Your task to perform on an android device: Is it going to rain this weekend? Image 0: 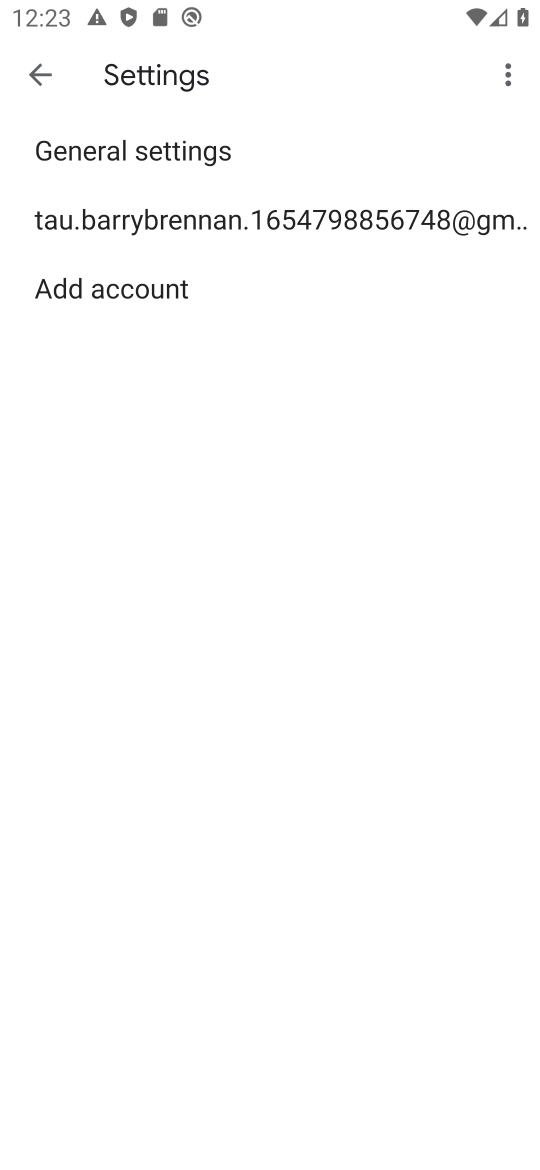
Step 0: press home button
Your task to perform on an android device: Is it going to rain this weekend? Image 1: 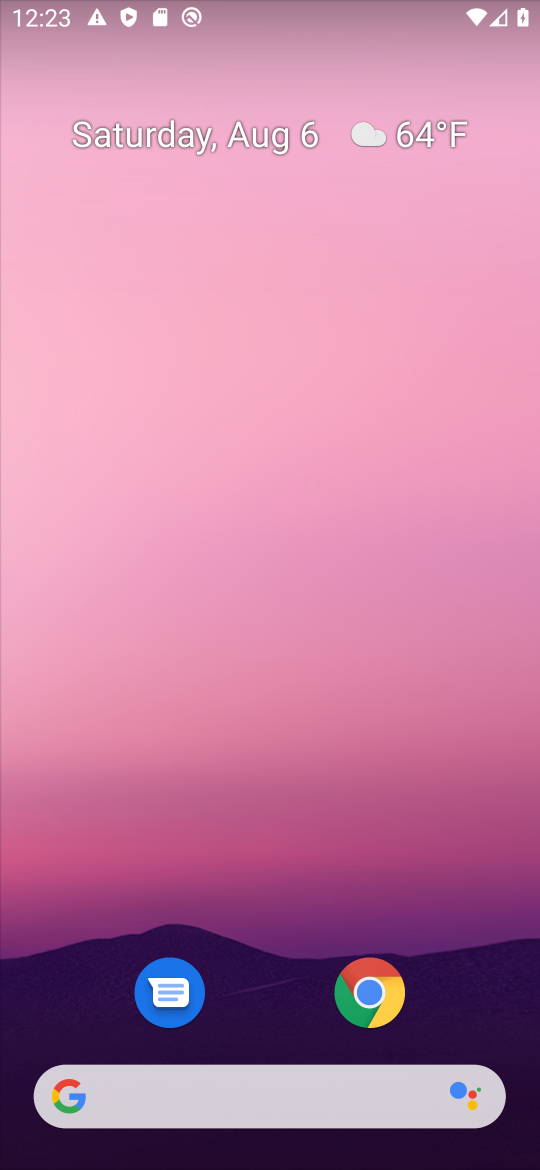
Step 1: click (164, 1088)
Your task to perform on an android device: Is it going to rain this weekend? Image 2: 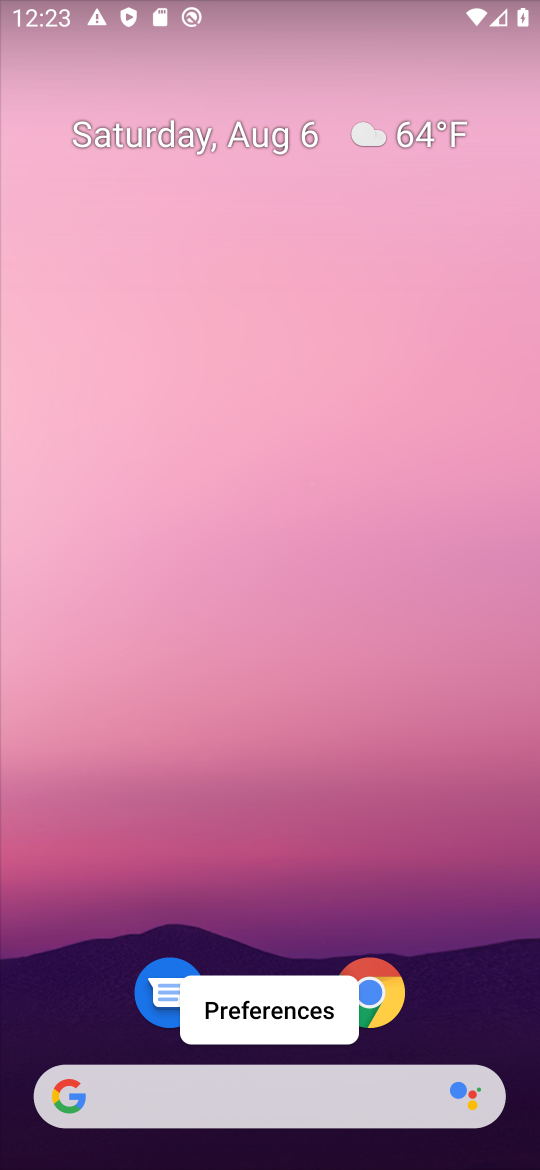
Step 2: click (172, 1089)
Your task to perform on an android device: Is it going to rain this weekend? Image 3: 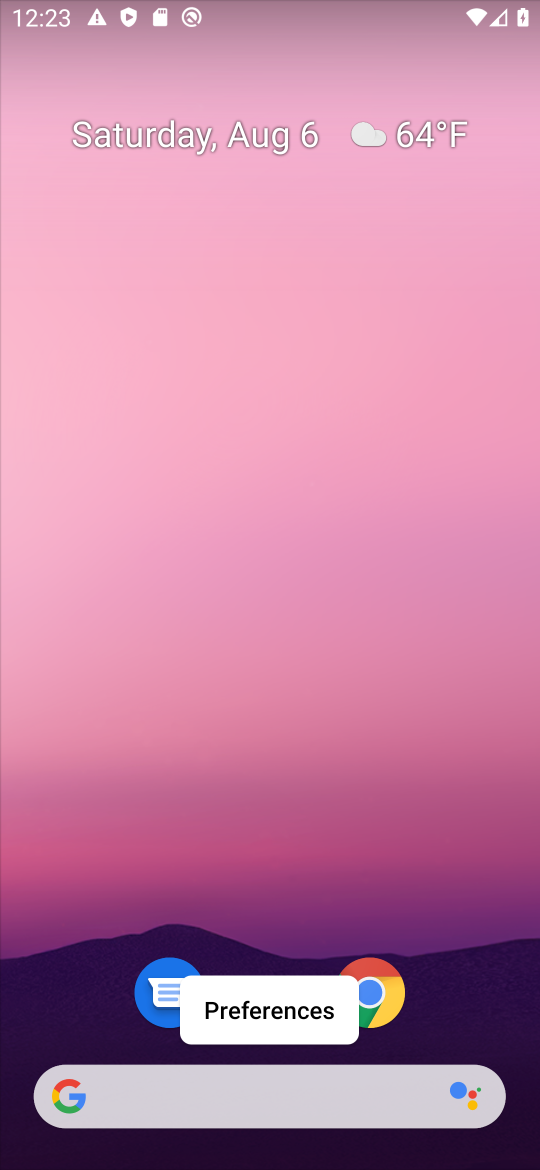
Step 3: click (184, 1089)
Your task to perform on an android device: Is it going to rain this weekend? Image 4: 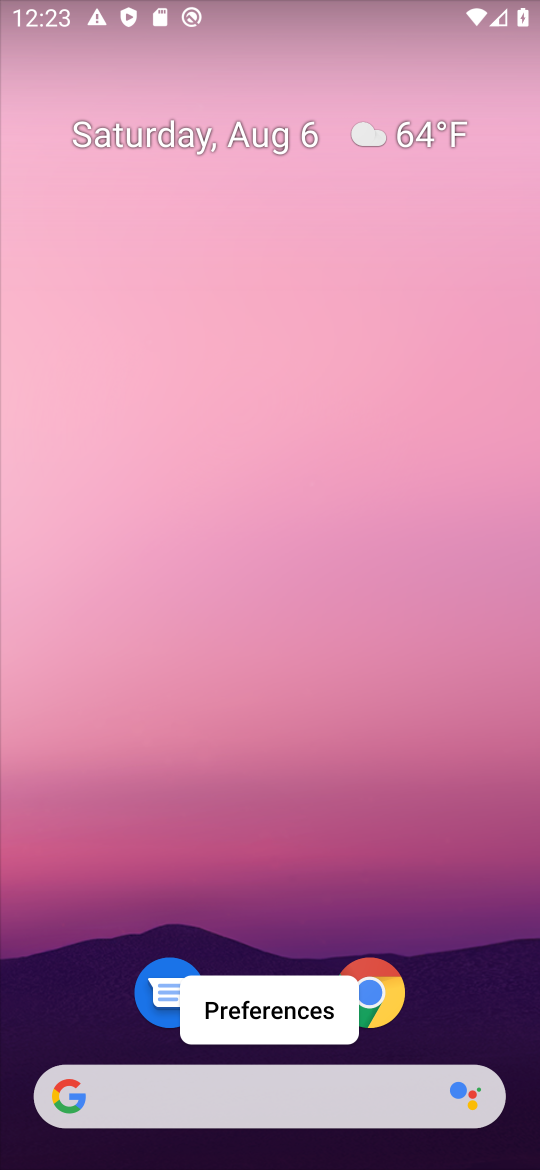
Step 4: click (185, 1081)
Your task to perform on an android device: Is it going to rain this weekend? Image 5: 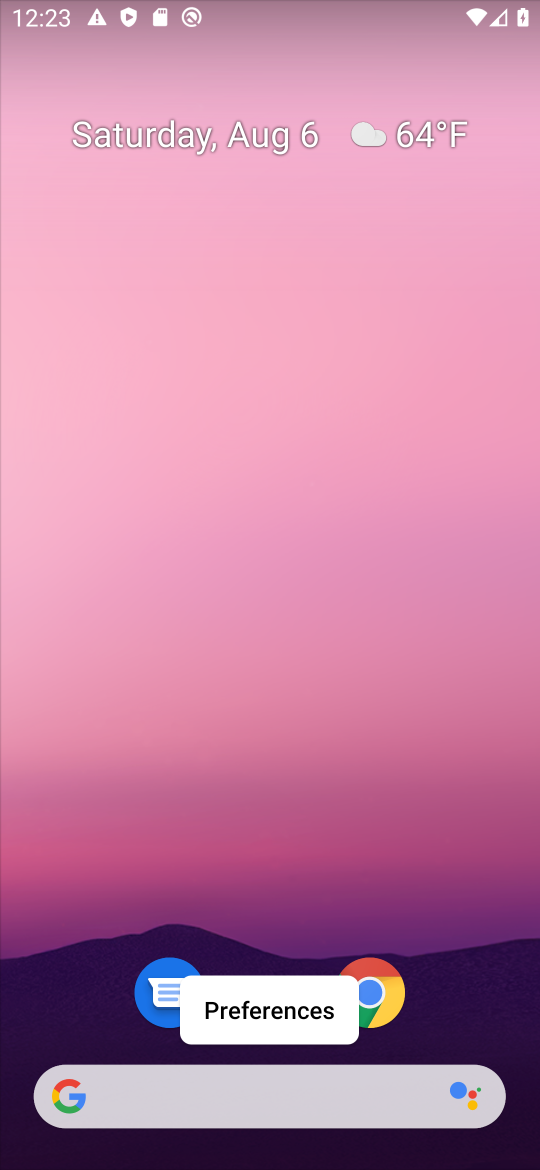
Step 5: click (240, 1098)
Your task to perform on an android device: Is it going to rain this weekend? Image 6: 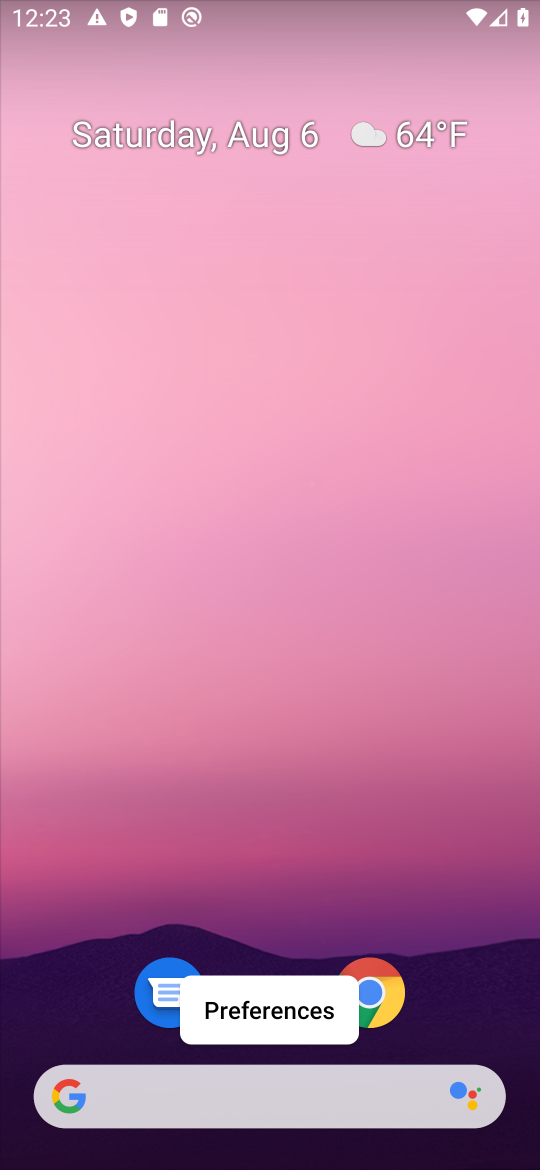
Step 6: click (196, 1098)
Your task to perform on an android device: Is it going to rain this weekend? Image 7: 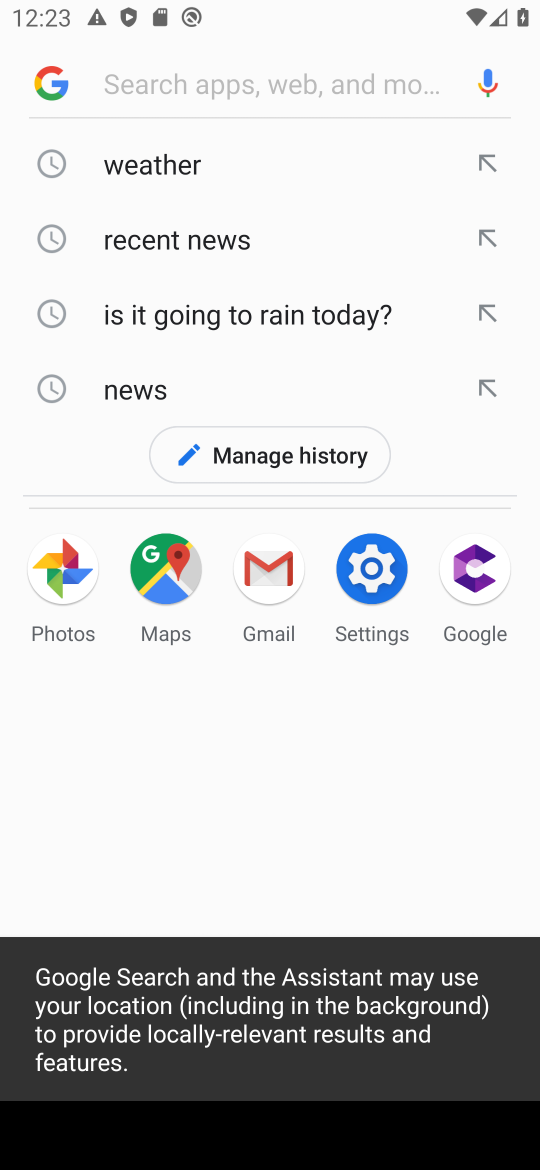
Step 7: click (186, 170)
Your task to perform on an android device: Is it going to rain this weekend? Image 8: 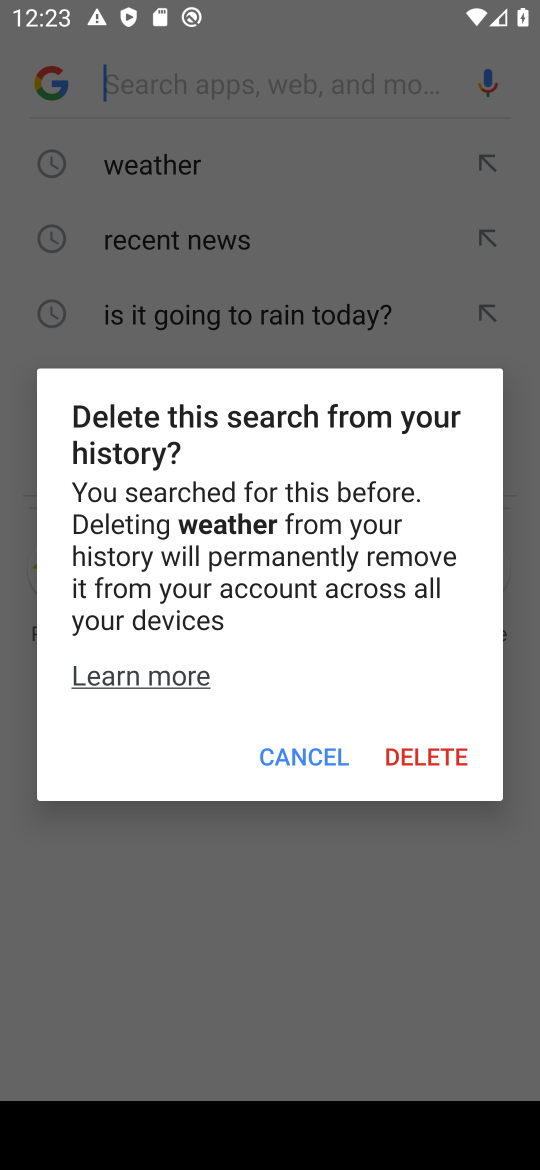
Step 8: click (316, 760)
Your task to perform on an android device: Is it going to rain this weekend? Image 9: 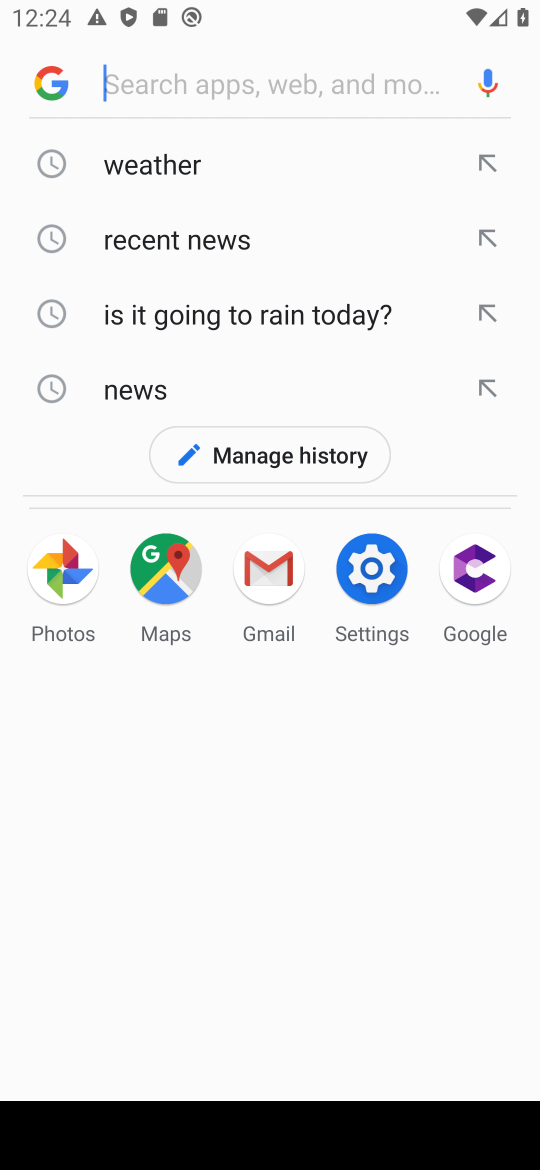
Step 9: click (220, 162)
Your task to perform on an android device: Is it going to rain this weekend? Image 10: 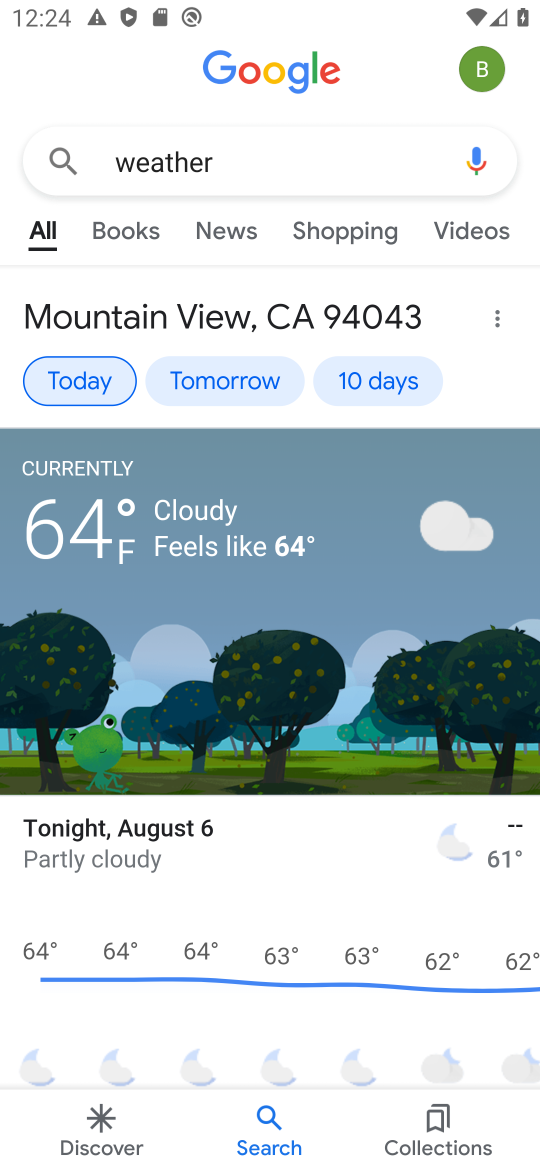
Step 10: click (377, 375)
Your task to perform on an android device: Is it going to rain this weekend? Image 11: 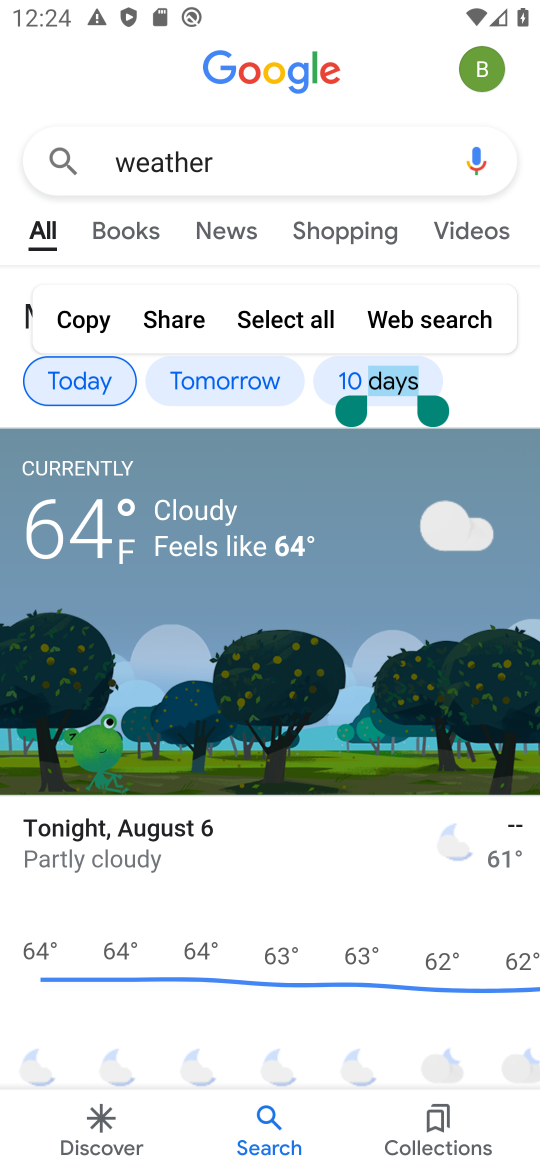
Step 11: click (370, 380)
Your task to perform on an android device: Is it going to rain this weekend? Image 12: 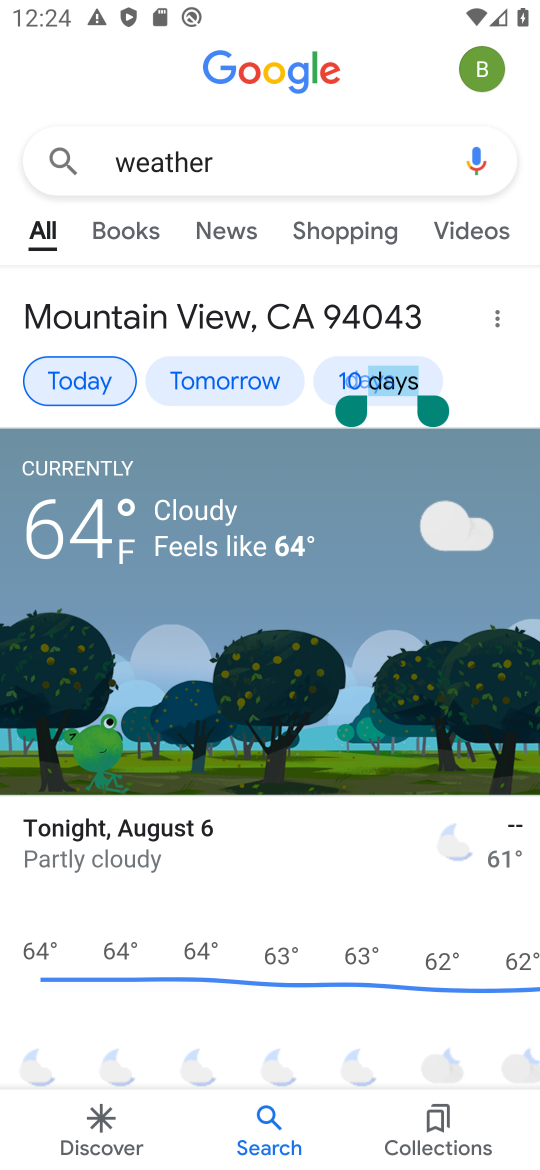
Step 12: click (357, 375)
Your task to perform on an android device: Is it going to rain this weekend? Image 13: 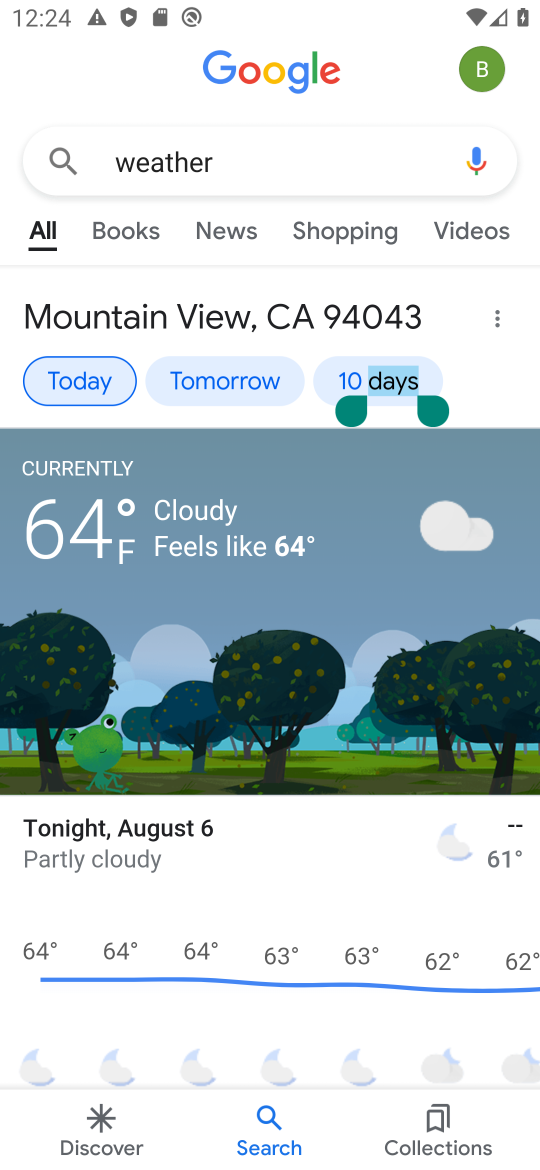
Step 13: drag from (275, 935) to (409, 290)
Your task to perform on an android device: Is it going to rain this weekend? Image 14: 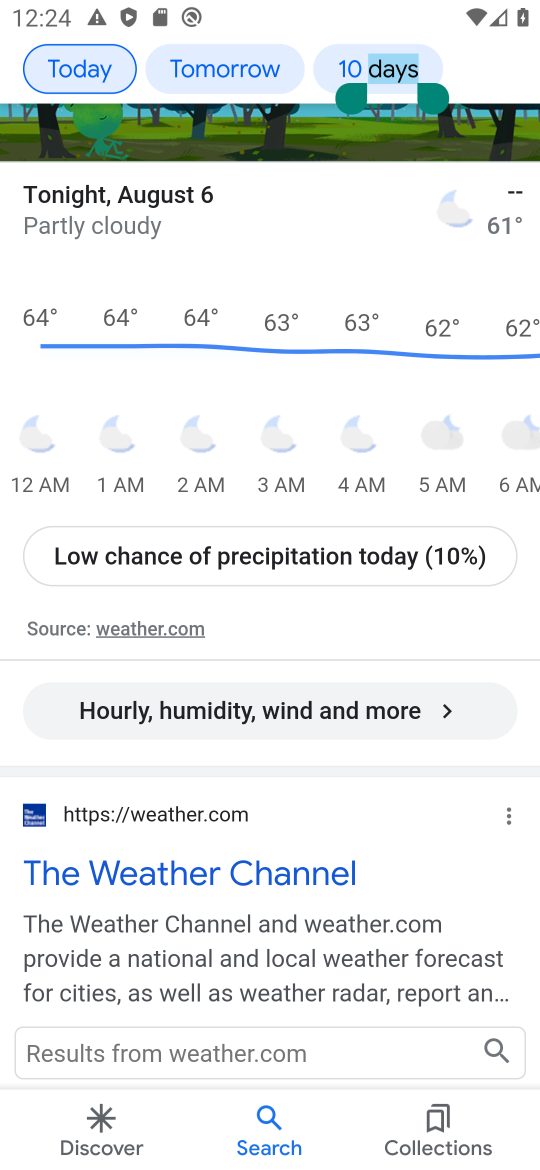
Step 14: drag from (374, 524) to (215, 862)
Your task to perform on an android device: Is it going to rain this weekend? Image 15: 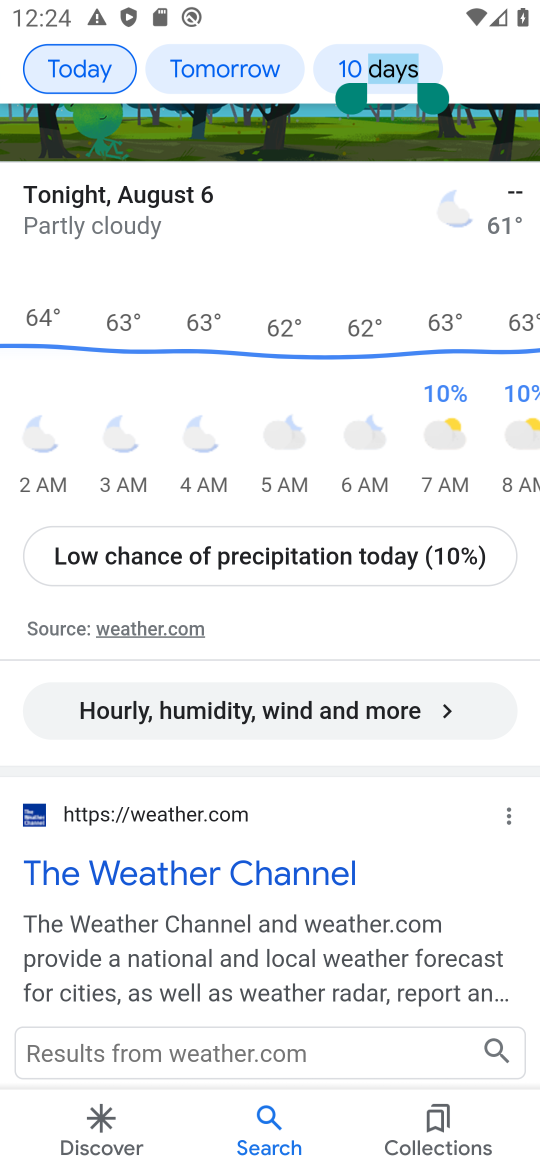
Step 15: click (357, 72)
Your task to perform on an android device: Is it going to rain this weekend? Image 16: 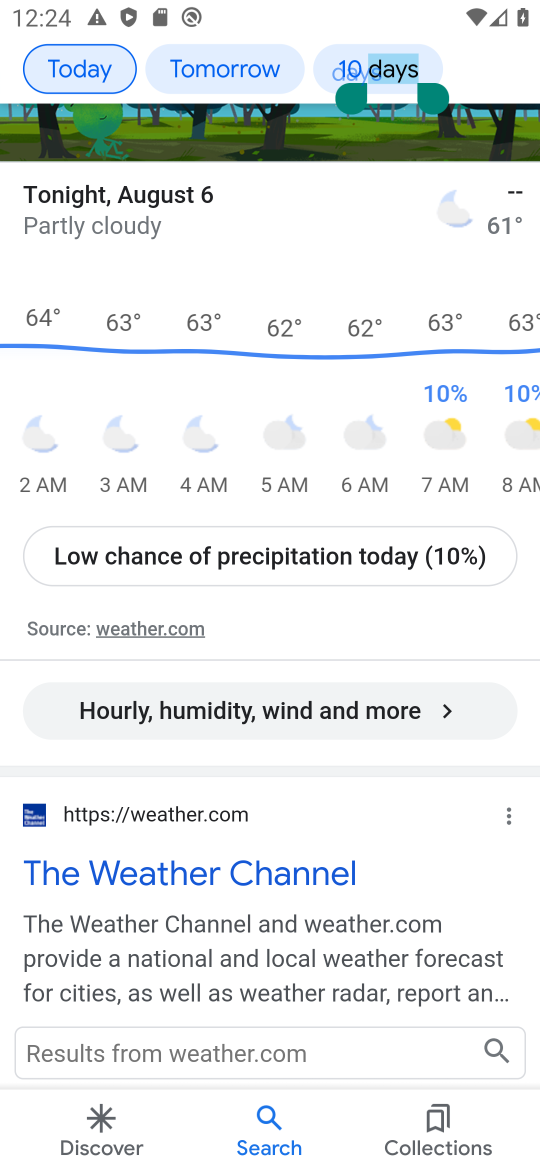
Step 16: task complete